Your task to perform on an android device: delete a single message in the gmail app Image 0: 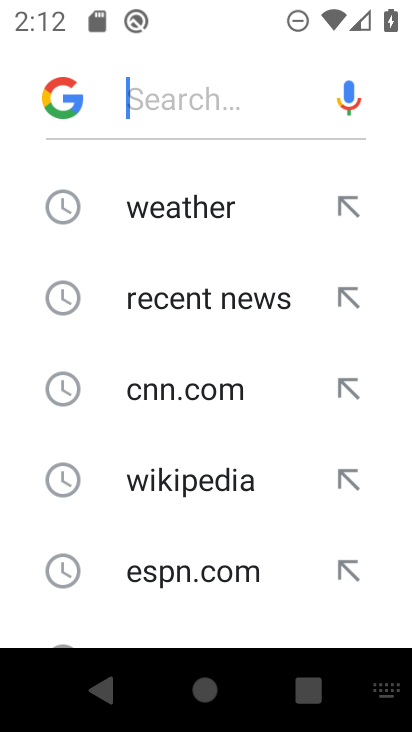
Step 0: press home button
Your task to perform on an android device: delete a single message in the gmail app Image 1: 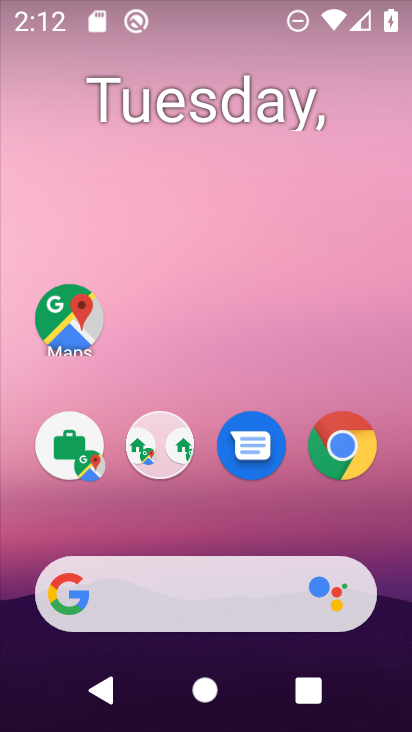
Step 1: drag from (273, 529) to (319, 174)
Your task to perform on an android device: delete a single message in the gmail app Image 2: 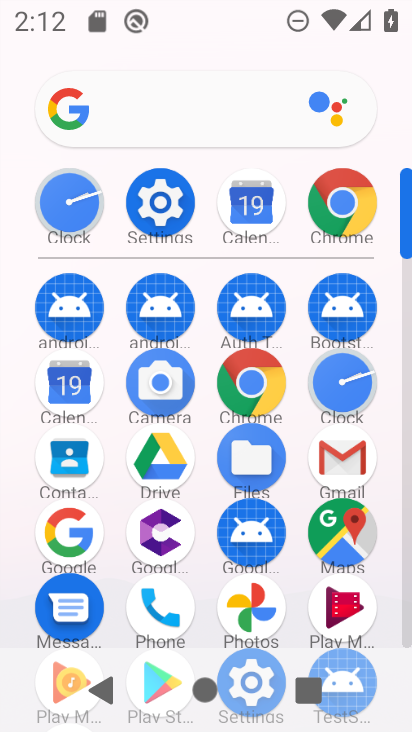
Step 2: click (347, 468)
Your task to perform on an android device: delete a single message in the gmail app Image 3: 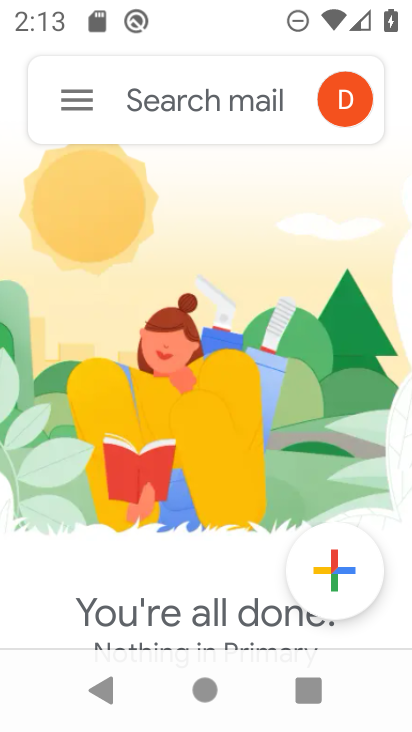
Step 3: click (82, 106)
Your task to perform on an android device: delete a single message in the gmail app Image 4: 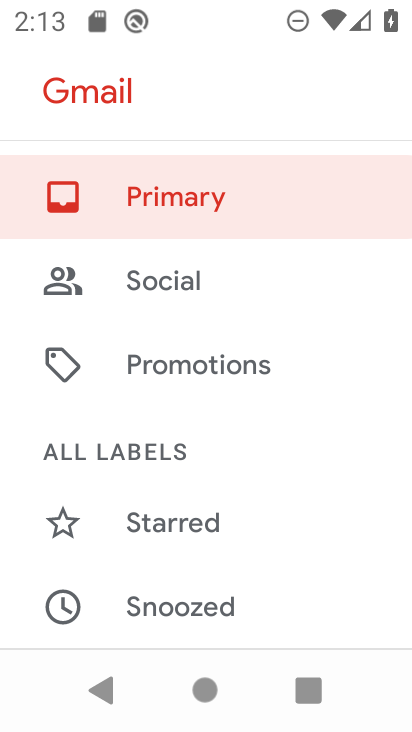
Step 4: drag from (176, 497) to (142, 208)
Your task to perform on an android device: delete a single message in the gmail app Image 5: 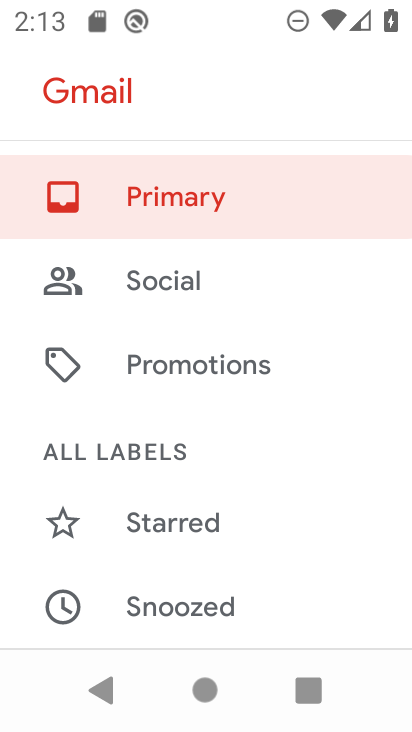
Step 5: drag from (207, 543) to (218, 209)
Your task to perform on an android device: delete a single message in the gmail app Image 6: 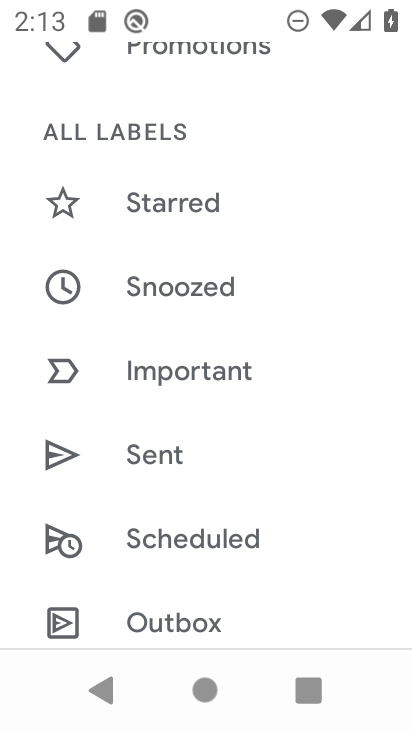
Step 6: drag from (182, 521) to (201, 218)
Your task to perform on an android device: delete a single message in the gmail app Image 7: 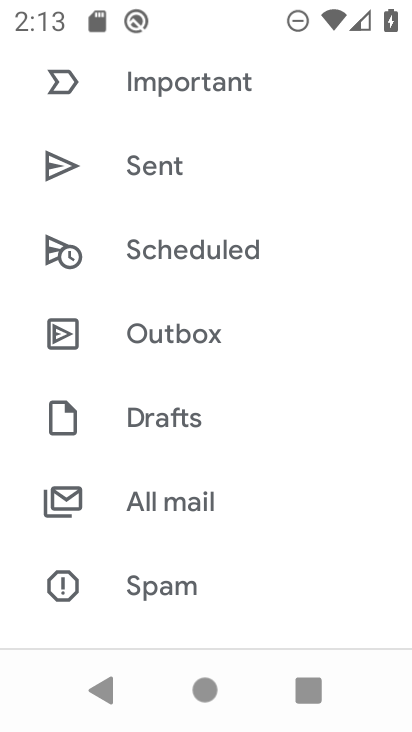
Step 7: click (201, 504)
Your task to perform on an android device: delete a single message in the gmail app Image 8: 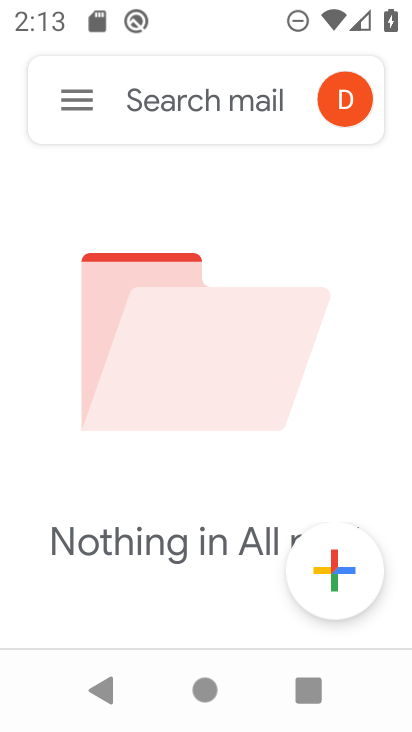
Step 8: task complete